Your task to perform on an android device: Go to Google maps Image 0: 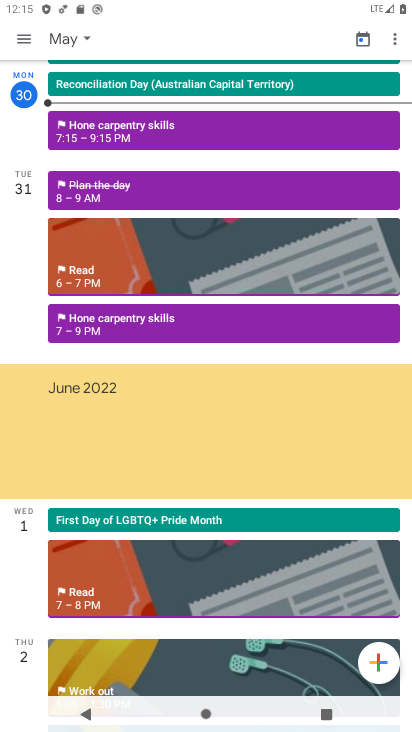
Step 0: press home button
Your task to perform on an android device: Go to Google maps Image 1: 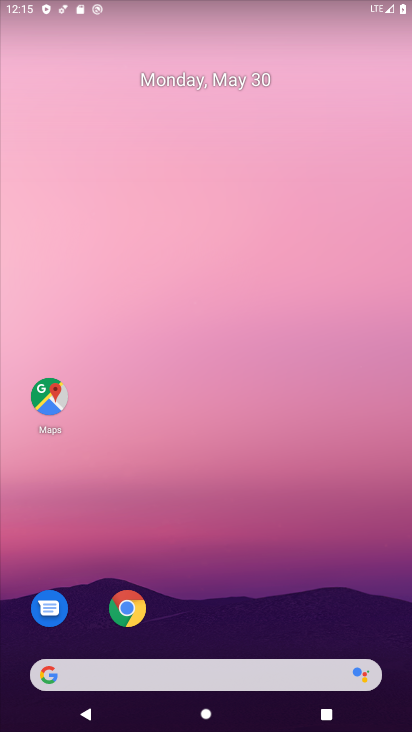
Step 1: click (49, 400)
Your task to perform on an android device: Go to Google maps Image 2: 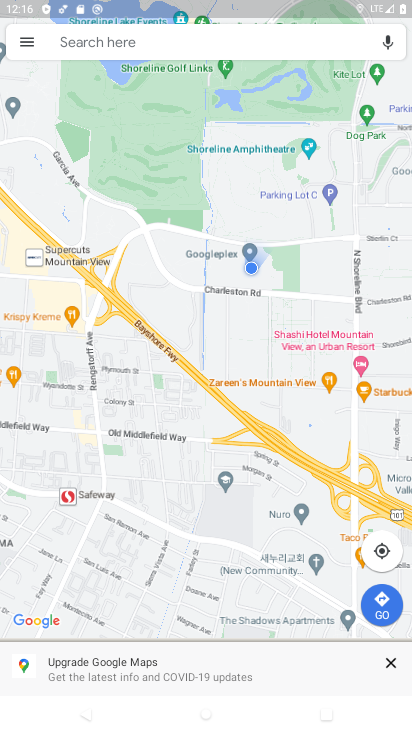
Step 2: task complete